Your task to perform on an android device: open a bookmark in the chrome app Image 0: 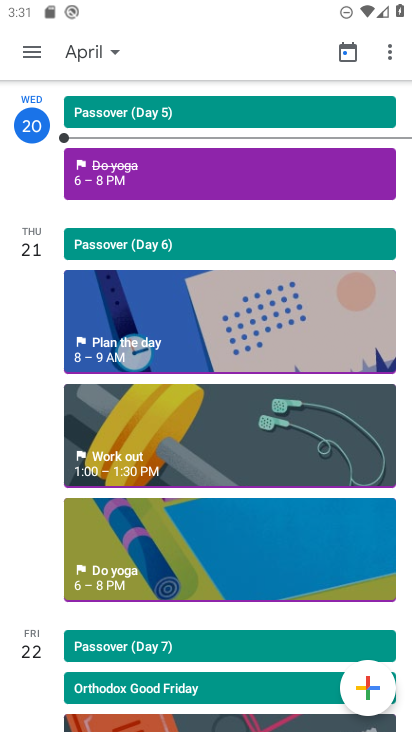
Step 0: press home button
Your task to perform on an android device: open a bookmark in the chrome app Image 1: 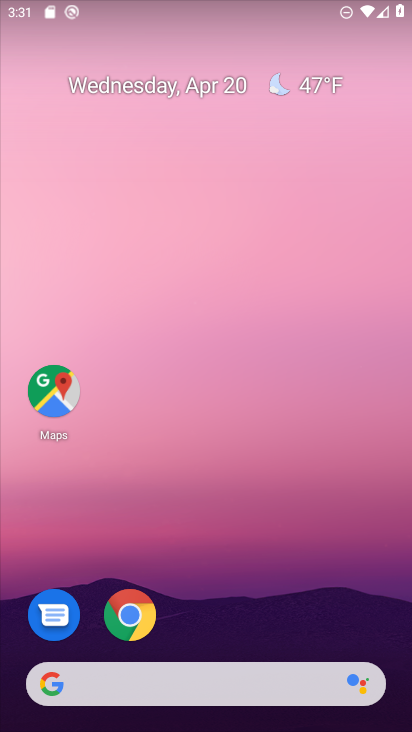
Step 1: click (148, 612)
Your task to perform on an android device: open a bookmark in the chrome app Image 2: 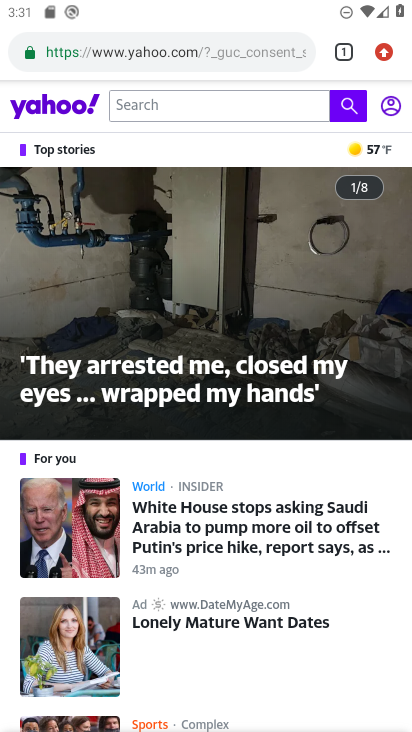
Step 2: click (388, 50)
Your task to perform on an android device: open a bookmark in the chrome app Image 3: 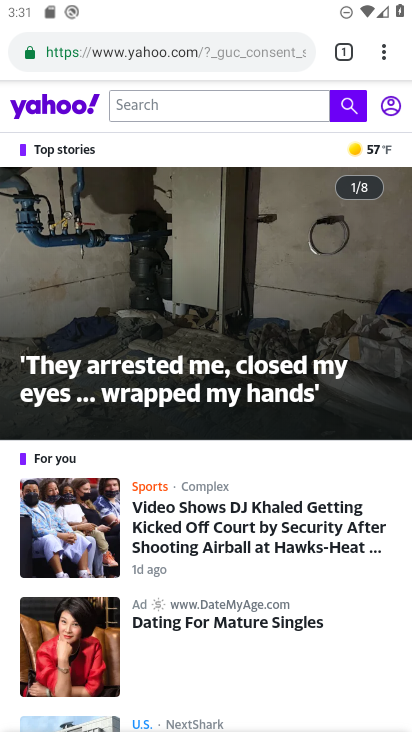
Step 3: click (376, 49)
Your task to perform on an android device: open a bookmark in the chrome app Image 4: 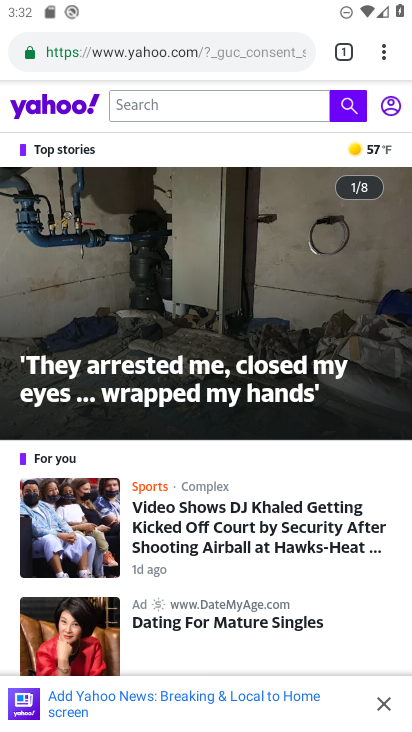
Step 4: click (383, 55)
Your task to perform on an android device: open a bookmark in the chrome app Image 5: 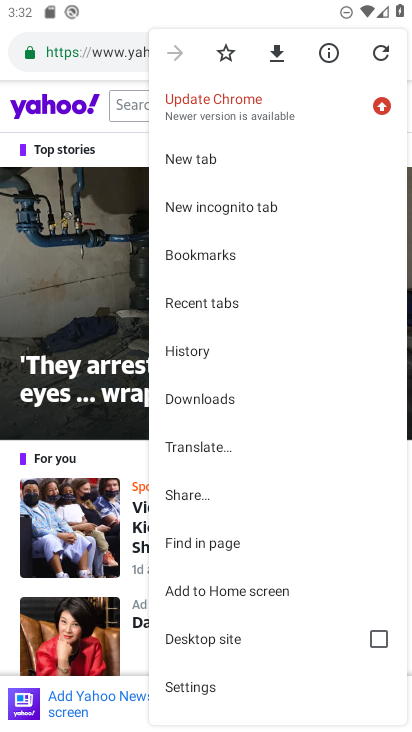
Step 5: click (196, 264)
Your task to perform on an android device: open a bookmark in the chrome app Image 6: 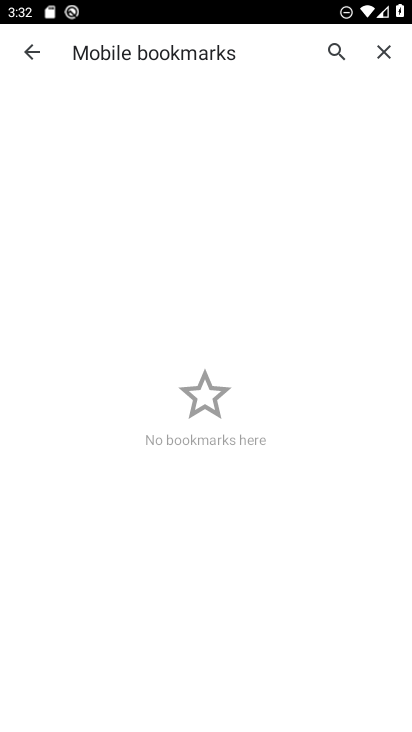
Step 6: click (203, 257)
Your task to perform on an android device: open a bookmark in the chrome app Image 7: 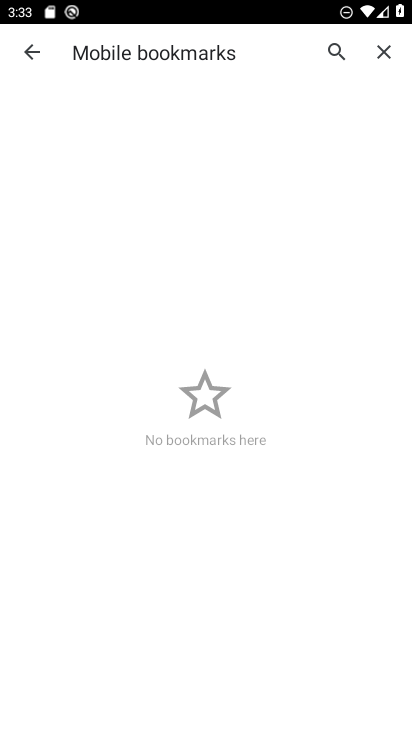
Step 7: task complete